Your task to perform on an android device: Go to display settings Image 0: 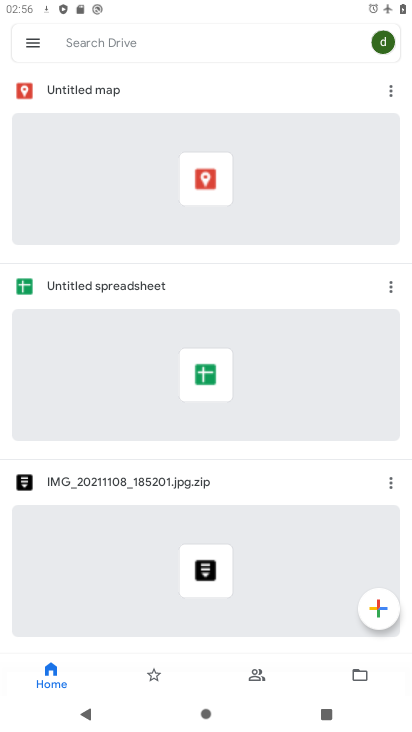
Step 0: press home button
Your task to perform on an android device: Go to display settings Image 1: 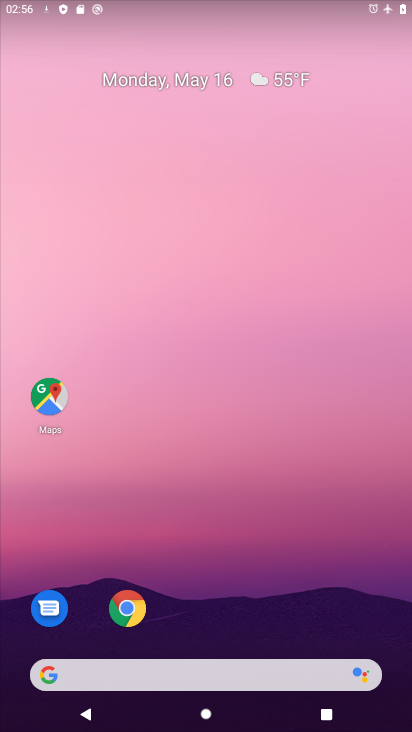
Step 1: drag from (217, 589) to (187, 88)
Your task to perform on an android device: Go to display settings Image 2: 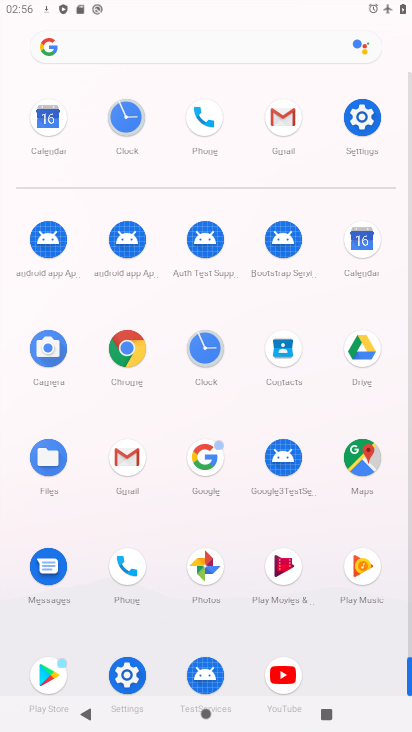
Step 2: click (343, 122)
Your task to perform on an android device: Go to display settings Image 3: 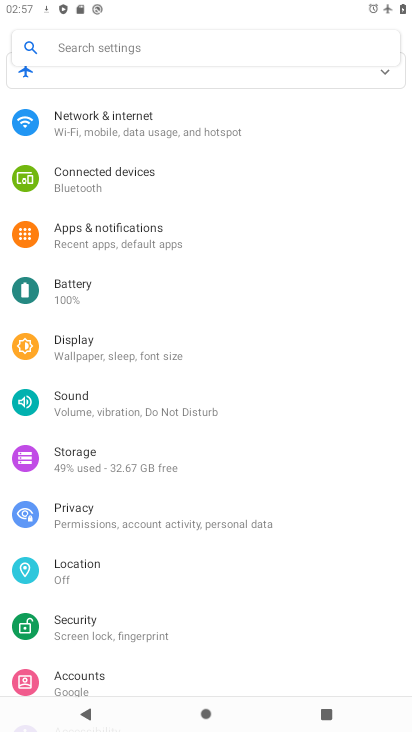
Step 3: drag from (154, 188) to (182, 509)
Your task to perform on an android device: Go to display settings Image 4: 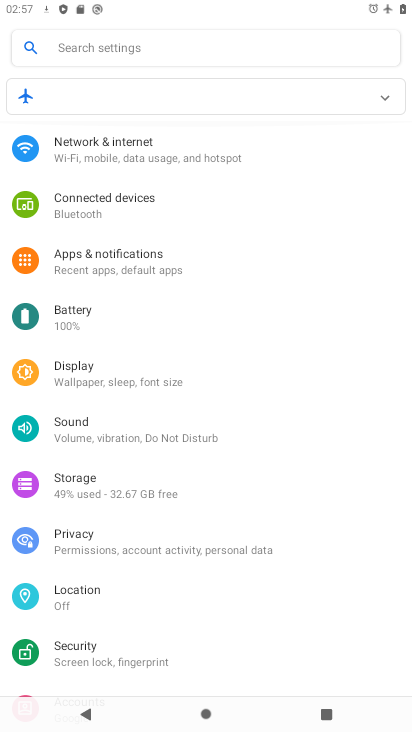
Step 4: click (126, 162)
Your task to perform on an android device: Go to display settings Image 5: 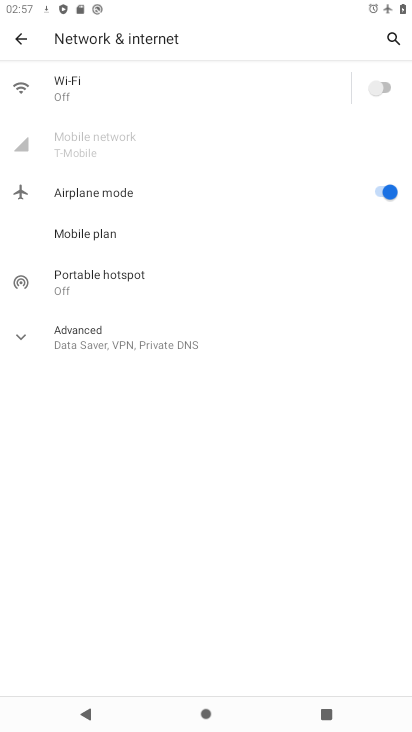
Step 5: press back button
Your task to perform on an android device: Go to display settings Image 6: 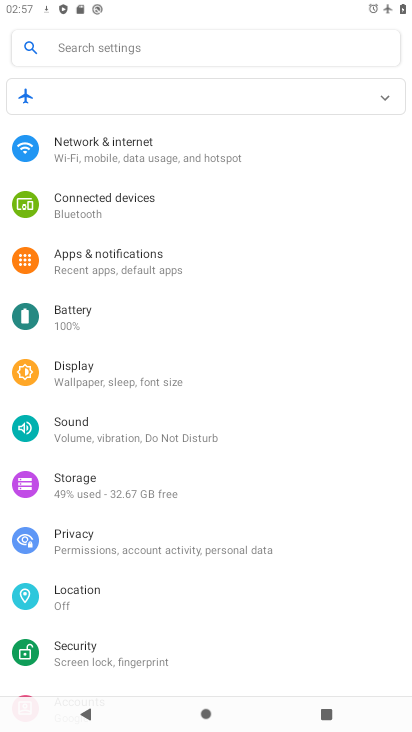
Step 6: click (94, 372)
Your task to perform on an android device: Go to display settings Image 7: 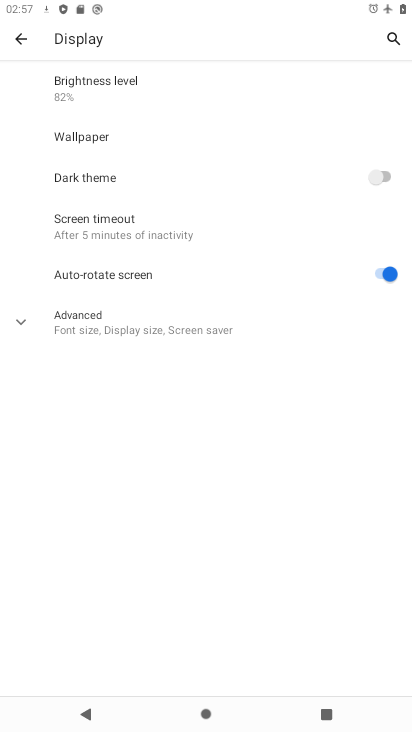
Step 7: task complete